Your task to perform on an android device: Open network settings Image 0: 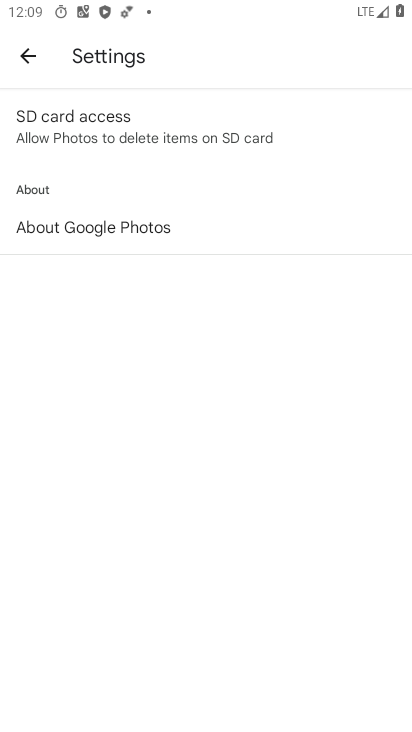
Step 0: press home button
Your task to perform on an android device: Open network settings Image 1: 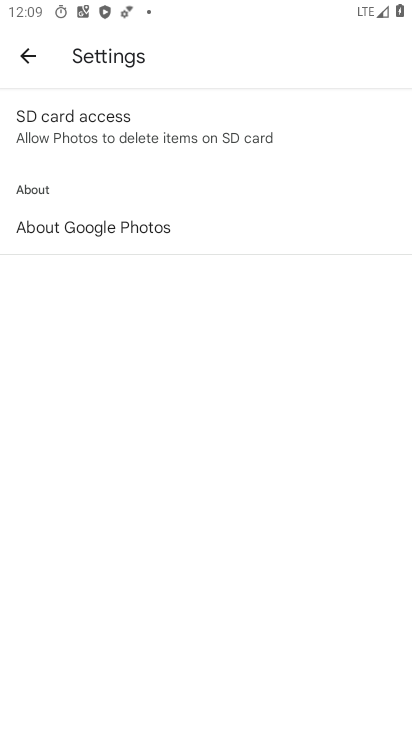
Step 1: press home button
Your task to perform on an android device: Open network settings Image 2: 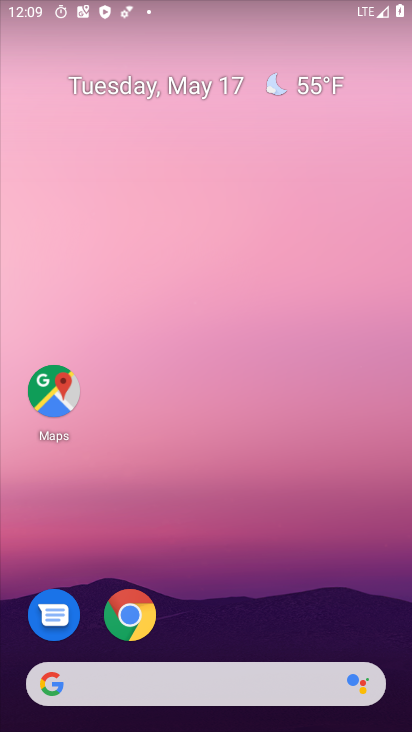
Step 2: drag from (278, 459) to (340, 30)
Your task to perform on an android device: Open network settings Image 3: 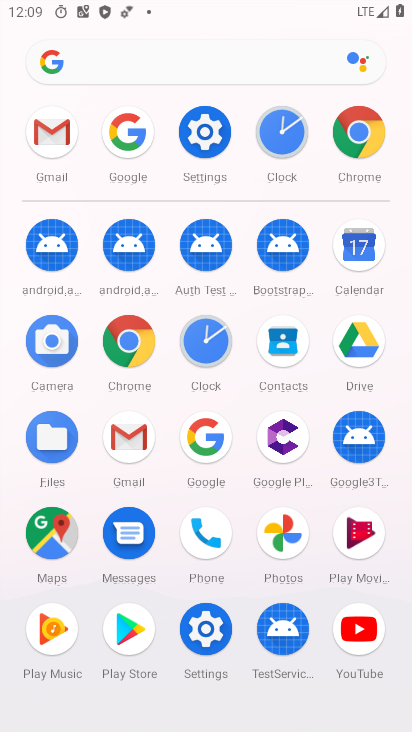
Step 3: click (195, 145)
Your task to perform on an android device: Open network settings Image 4: 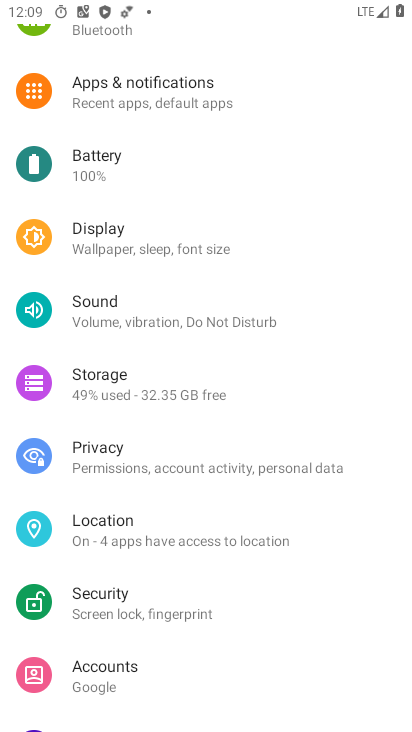
Step 4: drag from (118, 189) to (124, 665)
Your task to perform on an android device: Open network settings Image 5: 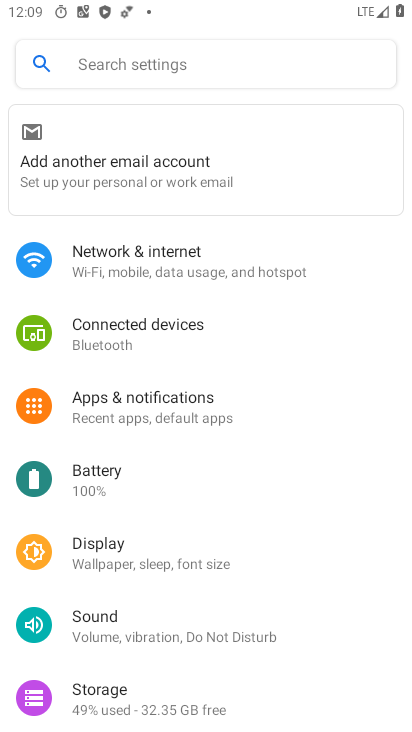
Step 5: click (105, 267)
Your task to perform on an android device: Open network settings Image 6: 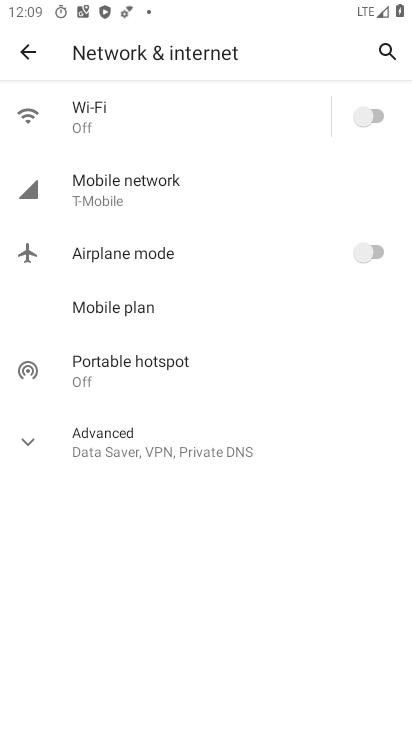
Step 6: task complete